Your task to perform on an android device: open device folders in google photos Image 0: 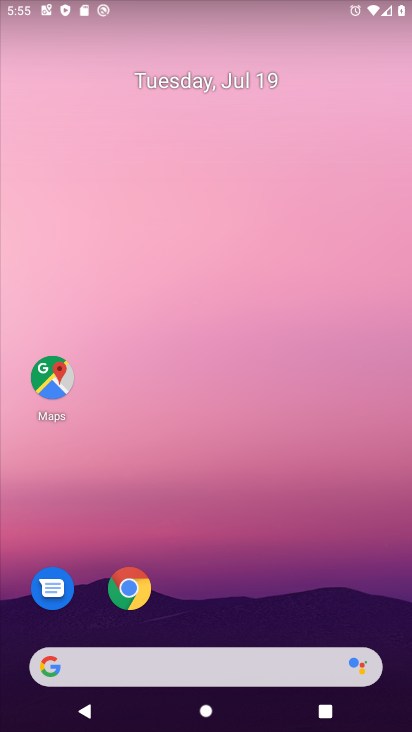
Step 0: drag from (216, 625) to (211, 261)
Your task to perform on an android device: open device folders in google photos Image 1: 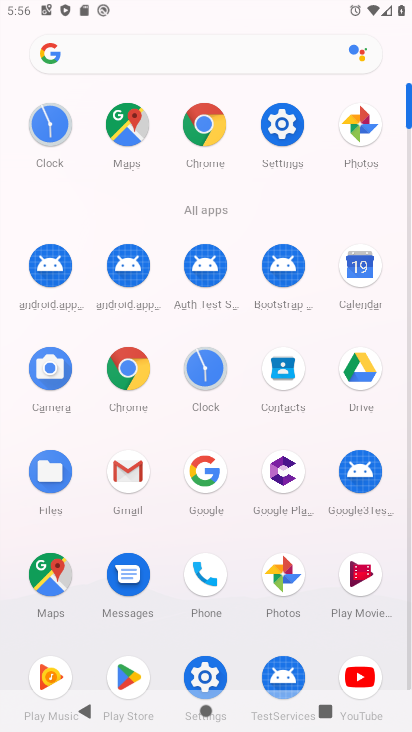
Step 1: click (281, 575)
Your task to perform on an android device: open device folders in google photos Image 2: 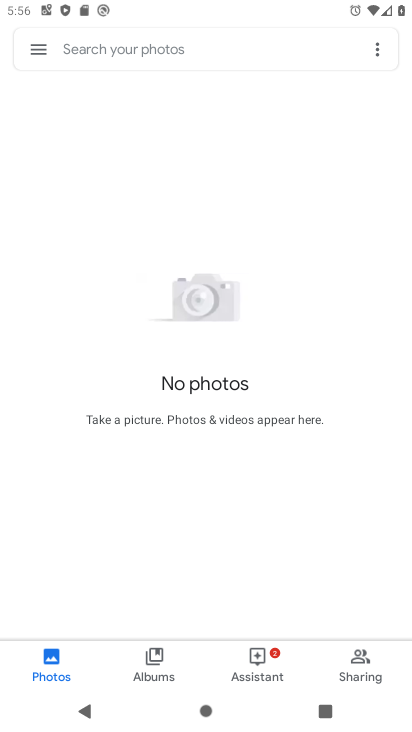
Step 2: click (40, 54)
Your task to perform on an android device: open device folders in google photos Image 3: 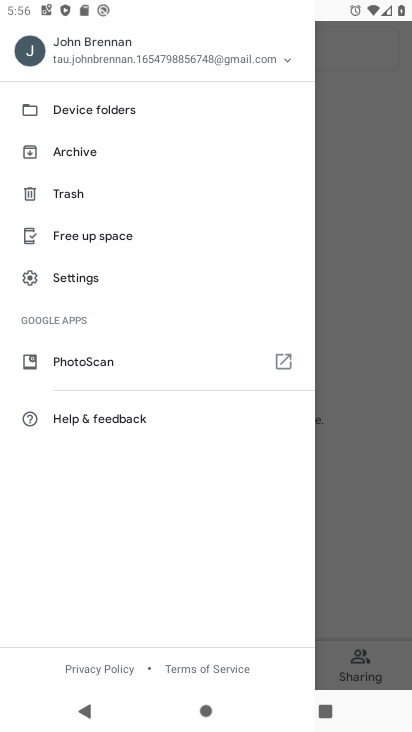
Step 3: click (114, 124)
Your task to perform on an android device: open device folders in google photos Image 4: 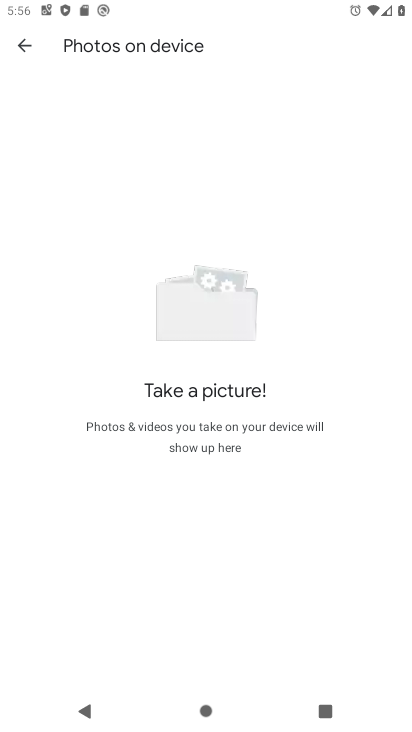
Step 4: task complete